Your task to perform on an android device: Open maps Image 0: 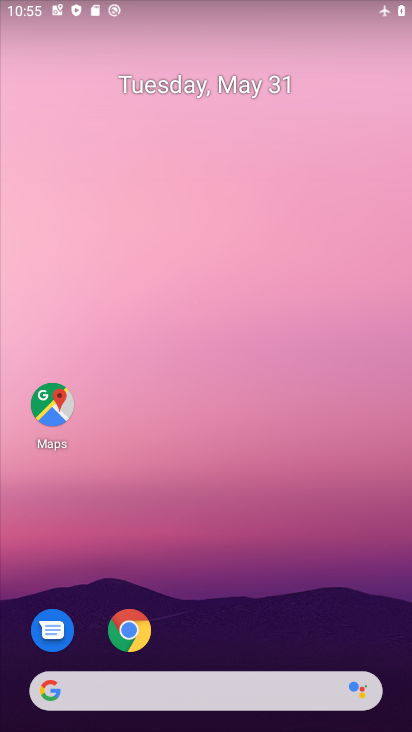
Step 0: drag from (223, 671) to (269, 161)
Your task to perform on an android device: Open maps Image 1: 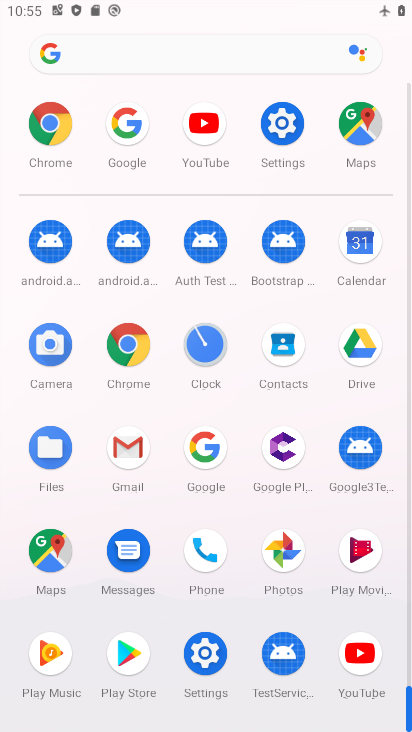
Step 1: drag from (218, 539) to (238, 361)
Your task to perform on an android device: Open maps Image 2: 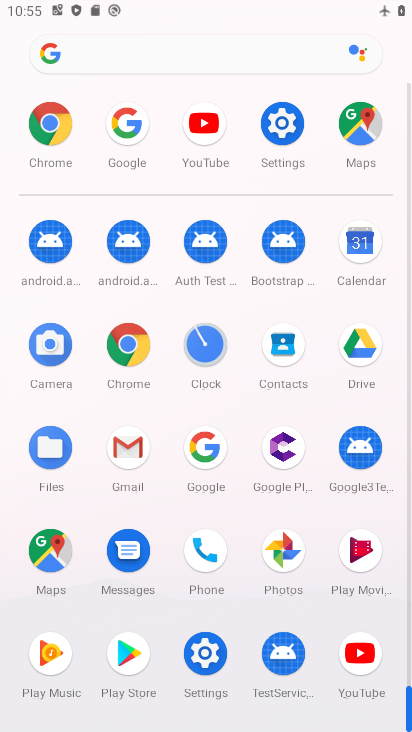
Step 2: click (46, 558)
Your task to perform on an android device: Open maps Image 3: 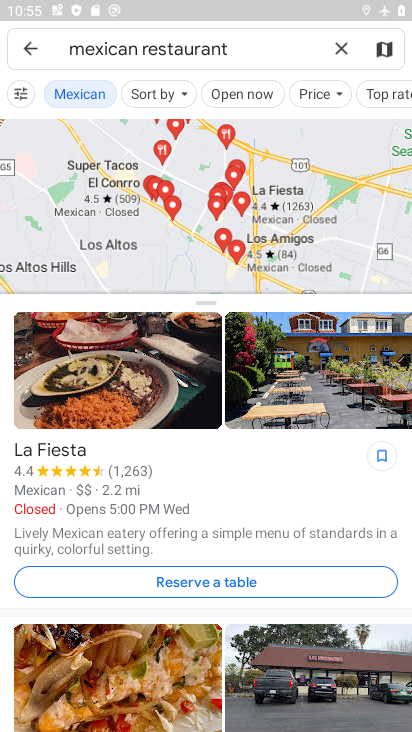
Step 3: task complete